Your task to perform on an android device: Open calendar and show me the second week of next month Image 0: 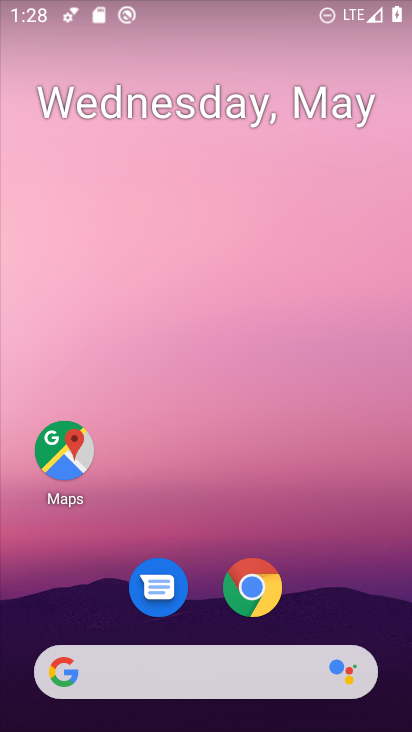
Step 0: drag from (334, 606) to (325, 146)
Your task to perform on an android device: Open calendar and show me the second week of next month Image 1: 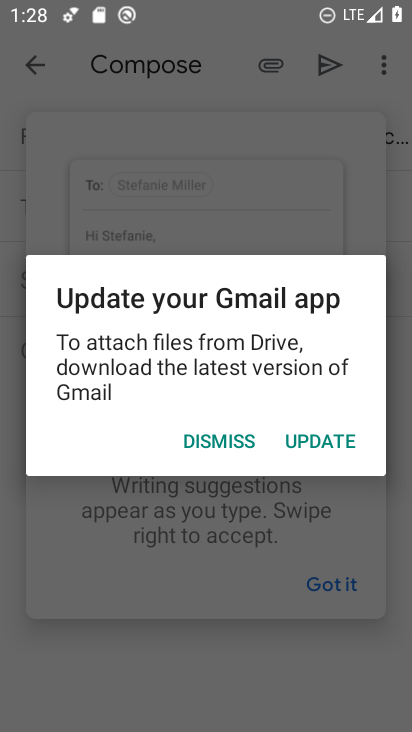
Step 1: press home button
Your task to perform on an android device: Open calendar and show me the second week of next month Image 2: 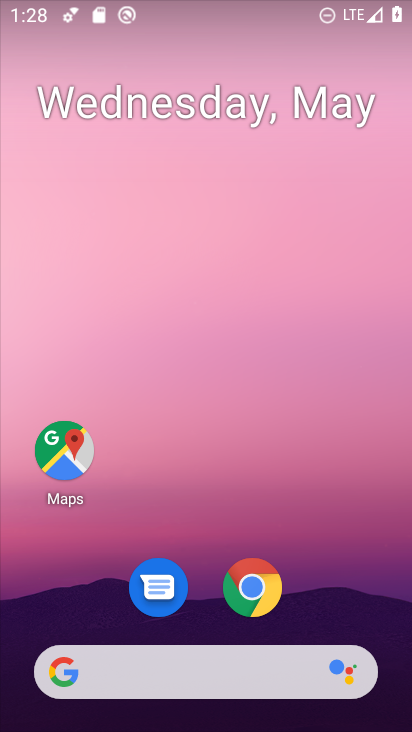
Step 2: drag from (291, 619) to (205, 172)
Your task to perform on an android device: Open calendar and show me the second week of next month Image 3: 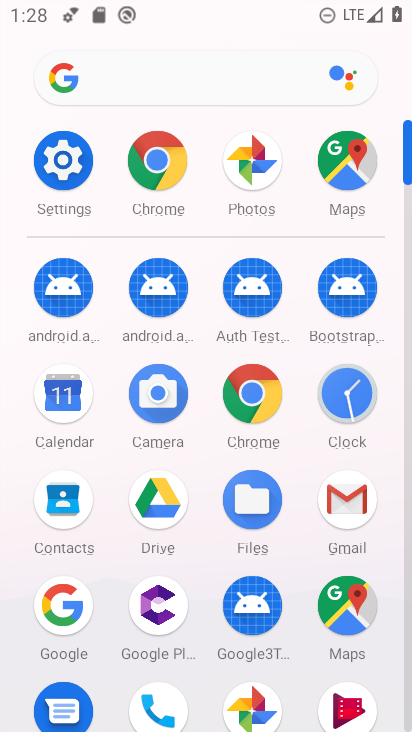
Step 3: click (58, 446)
Your task to perform on an android device: Open calendar and show me the second week of next month Image 4: 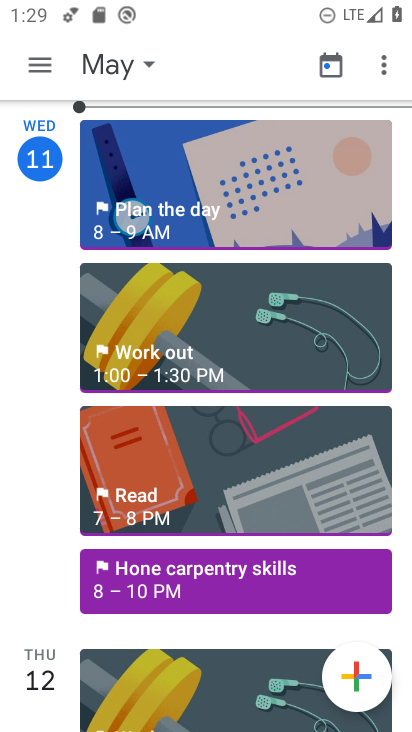
Step 4: click (30, 74)
Your task to perform on an android device: Open calendar and show me the second week of next month Image 5: 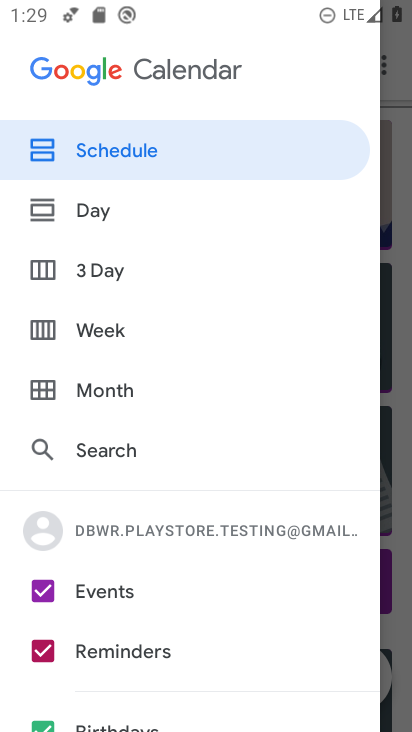
Step 5: click (121, 343)
Your task to perform on an android device: Open calendar and show me the second week of next month Image 6: 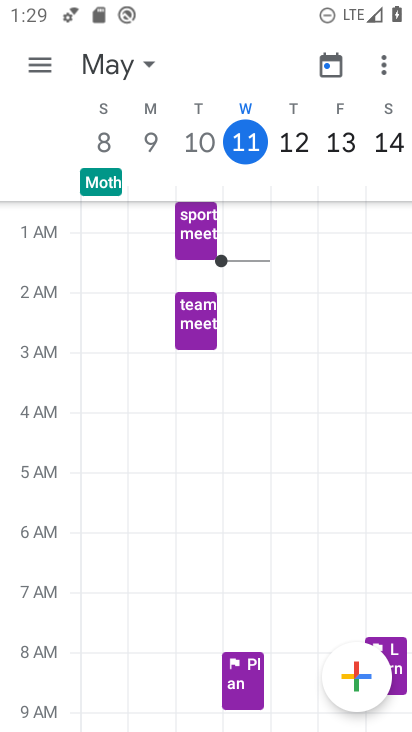
Step 6: click (122, 71)
Your task to perform on an android device: Open calendar and show me the second week of next month Image 7: 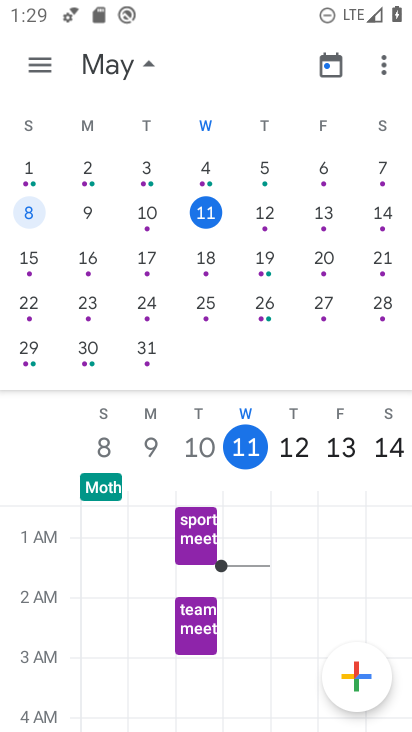
Step 7: drag from (314, 245) to (27, 264)
Your task to perform on an android device: Open calendar and show me the second week of next month Image 8: 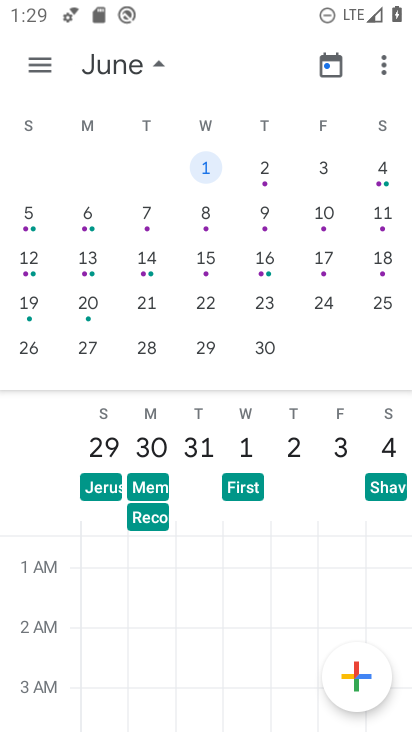
Step 8: click (36, 262)
Your task to perform on an android device: Open calendar and show me the second week of next month Image 9: 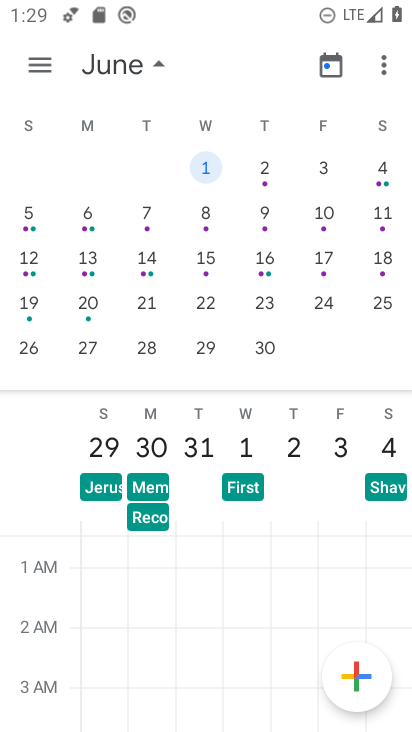
Step 9: click (36, 262)
Your task to perform on an android device: Open calendar and show me the second week of next month Image 10: 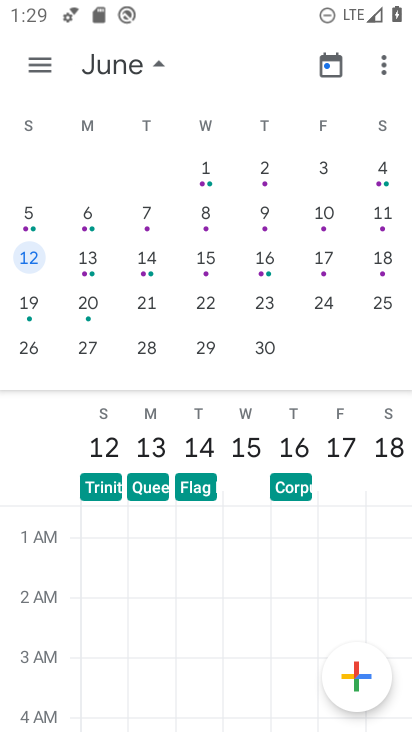
Step 10: task complete